Your task to perform on an android device: stop showing notifications on the lock screen Image 0: 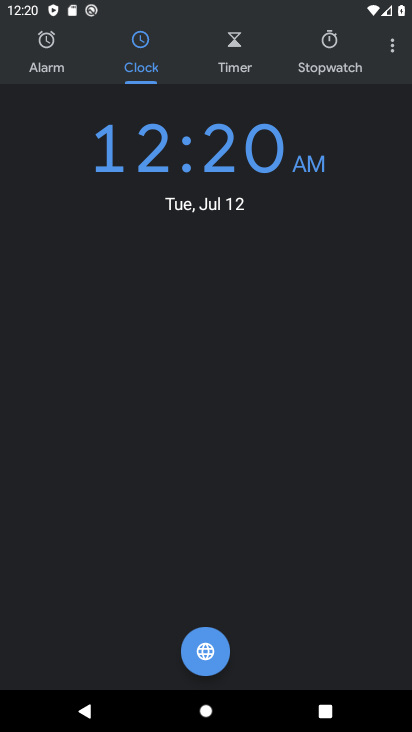
Step 0: press home button
Your task to perform on an android device: stop showing notifications on the lock screen Image 1: 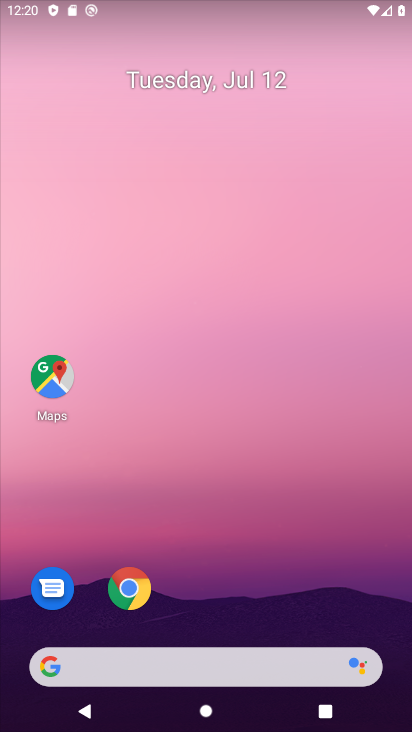
Step 1: drag from (167, 576) to (167, 364)
Your task to perform on an android device: stop showing notifications on the lock screen Image 2: 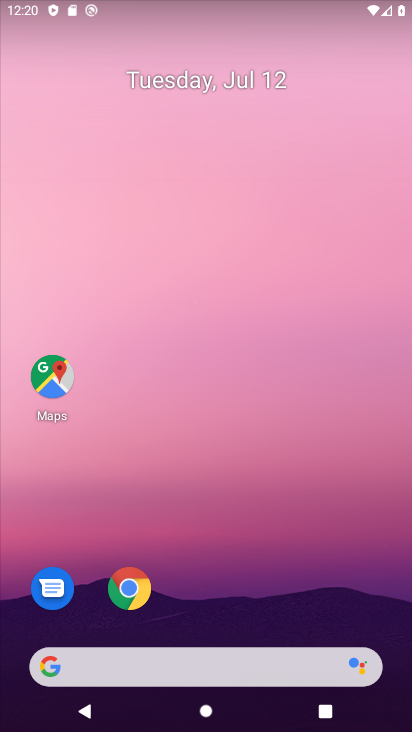
Step 2: drag from (259, 644) to (209, 310)
Your task to perform on an android device: stop showing notifications on the lock screen Image 3: 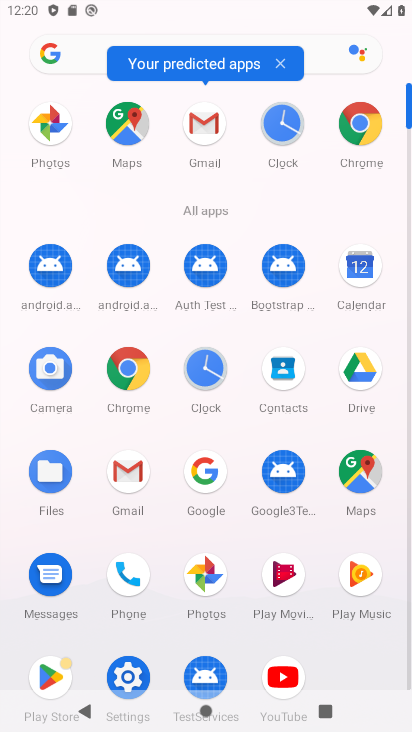
Step 3: click (128, 668)
Your task to perform on an android device: stop showing notifications on the lock screen Image 4: 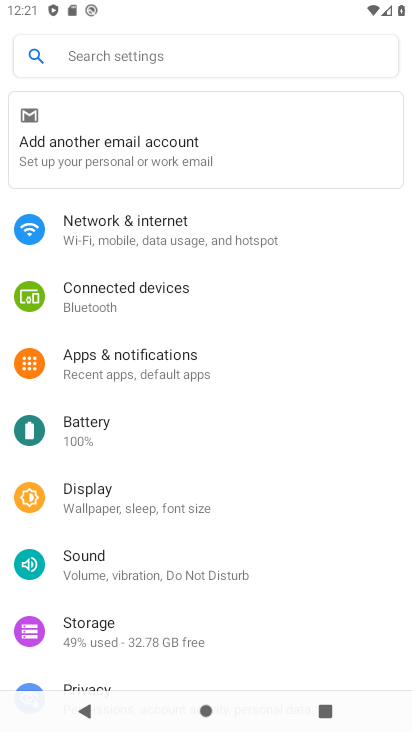
Step 4: drag from (115, 657) to (111, 360)
Your task to perform on an android device: stop showing notifications on the lock screen Image 5: 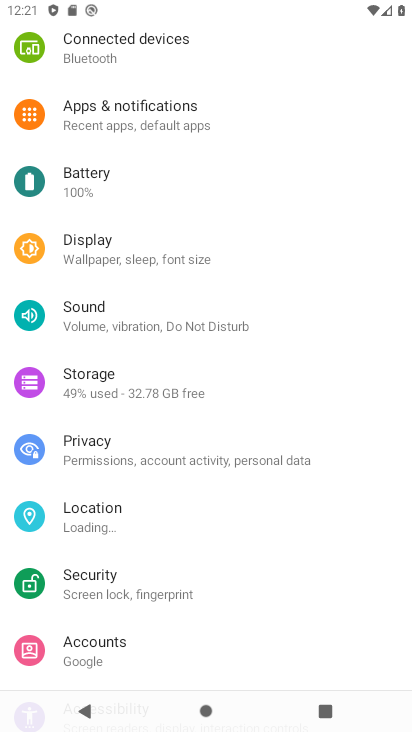
Step 5: click (81, 437)
Your task to perform on an android device: stop showing notifications on the lock screen Image 6: 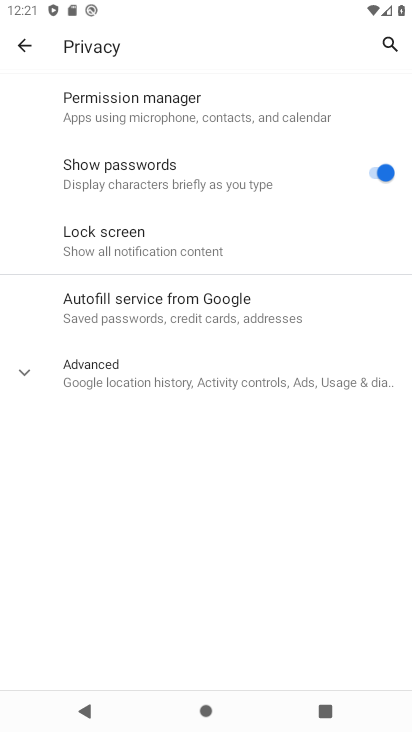
Step 6: click (96, 239)
Your task to perform on an android device: stop showing notifications on the lock screen Image 7: 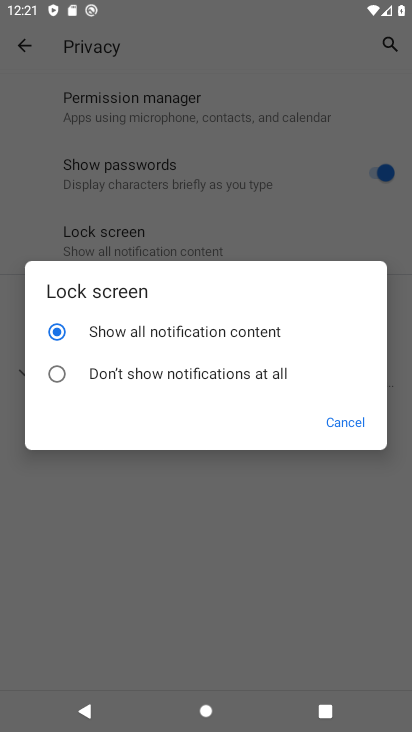
Step 7: click (126, 373)
Your task to perform on an android device: stop showing notifications on the lock screen Image 8: 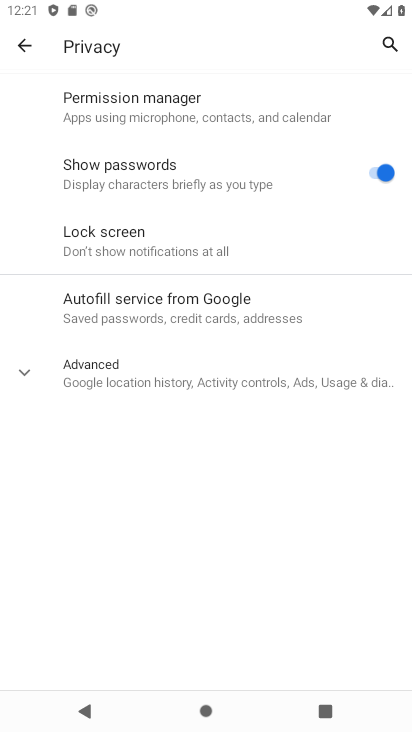
Step 8: task complete